Your task to perform on an android device: clear all cookies in the chrome app Image 0: 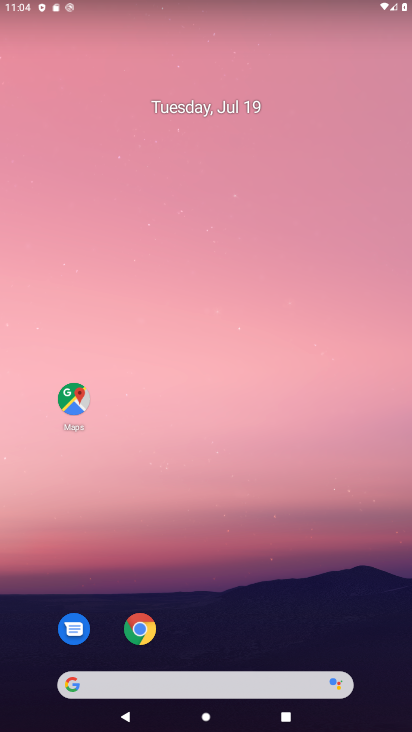
Step 0: drag from (260, 652) to (277, 44)
Your task to perform on an android device: clear all cookies in the chrome app Image 1: 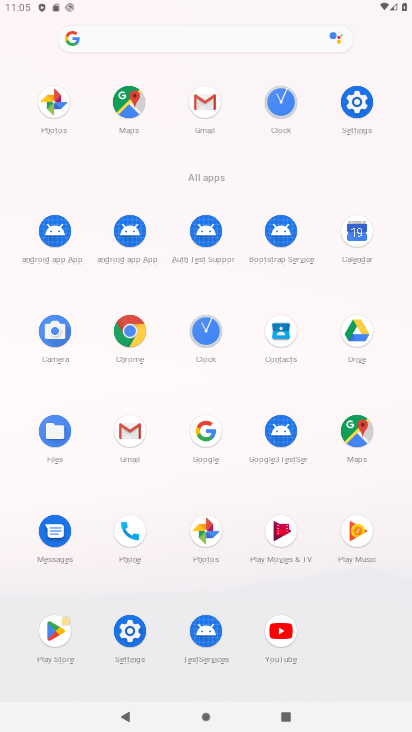
Step 1: click (135, 325)
Your task to perform on an android device: clear all cookies in the chrome app Image 2: 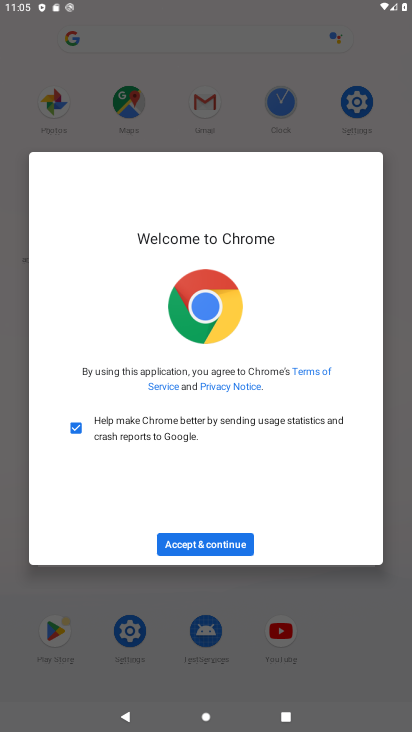
Step 2: click (235, 540)
Your task to perform on an android device: clear all cookies in the chrome app Image 3: 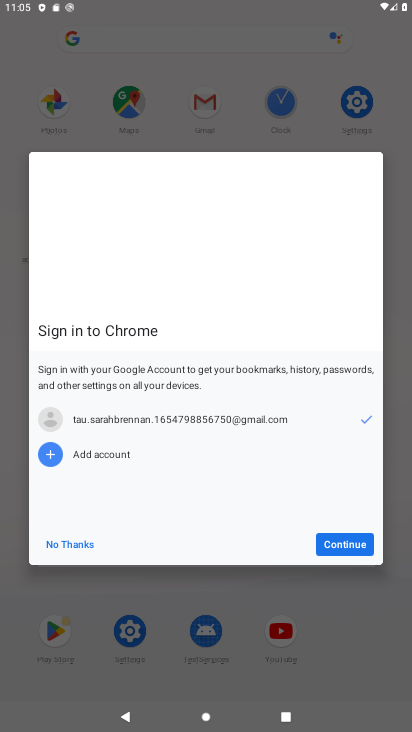
Step 3: click (341, 537)
Your task to perform on an android device: clear all cookies in the chrome app Image 4: 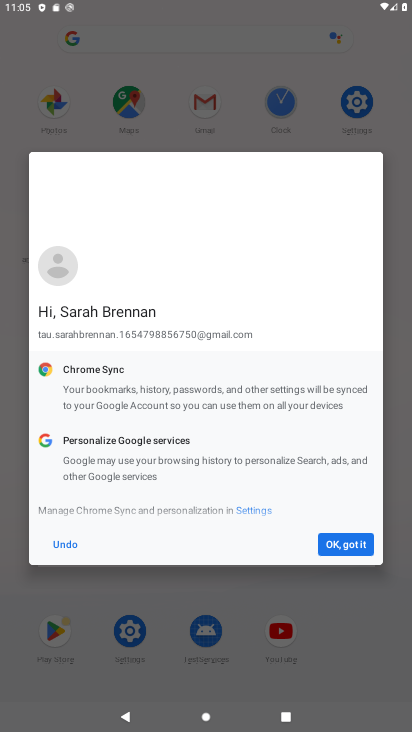
Step 4: click (341, 537)
Your task to perform on an android device: clear all cookies in the chrome app Image 5: 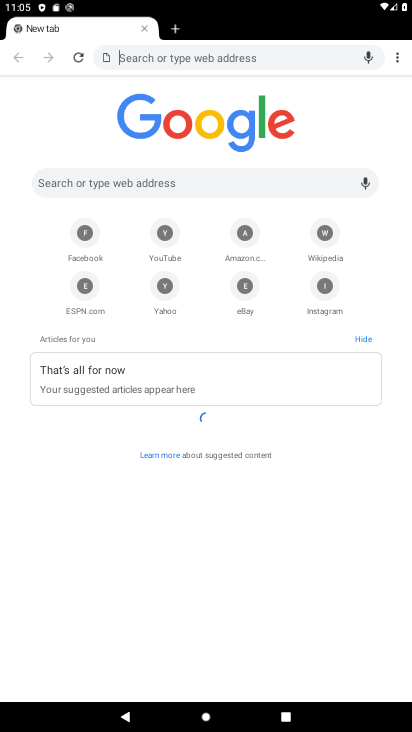
Step 5: drag from (392, 54) to (308, 264)
Your task to perform on an android device: clear all cookies in the chrome app Image 6: 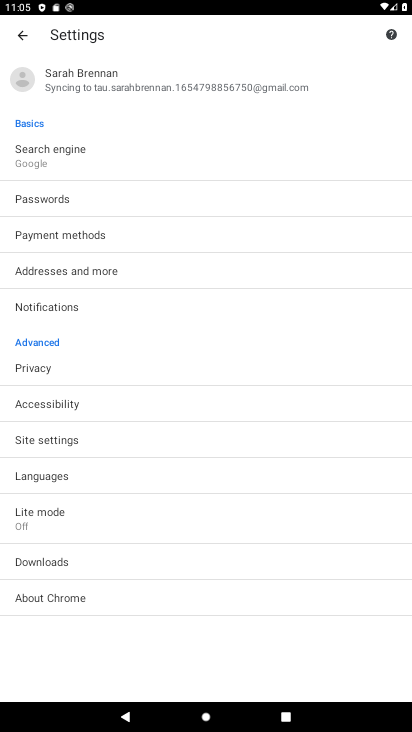
Step 6: click (18, 32)
Your task to perform on an android device: clear all cookies in the chrome app Image 7: 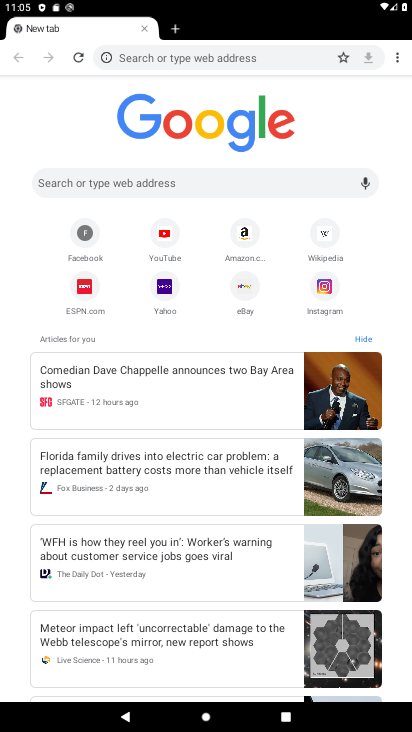
Step 7: drag from (404, 60) to (303, 170)
Your task to perform on an android device: clear all cookies in the chrome app Image 8: 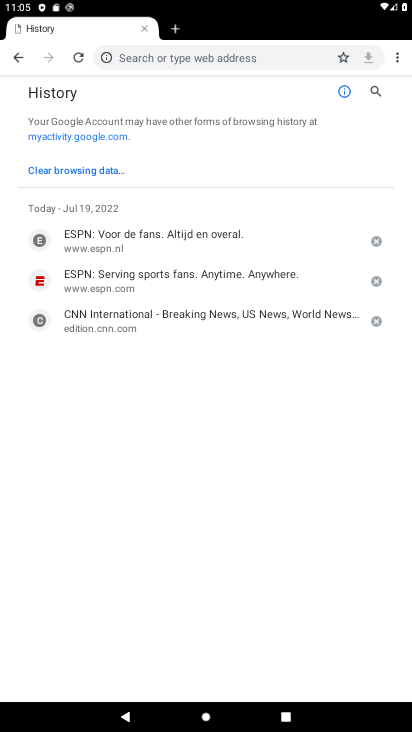
Step 8: click (95, 170)
Your task to perform on an android device: clear all cookies in the chrome app Image 9: 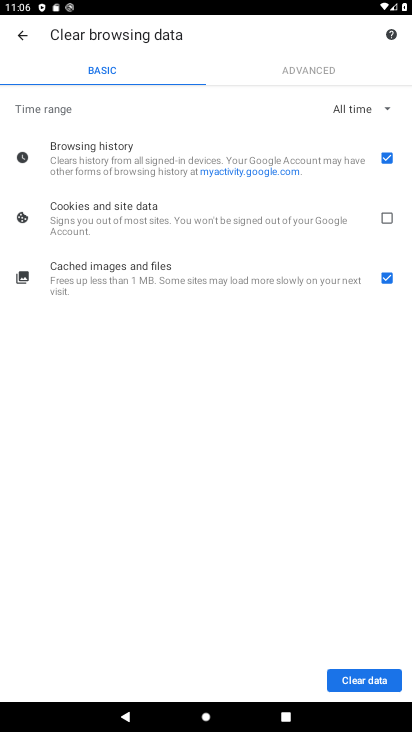
Step 9: click (386, 218)
Your task to perform on an android device: clear all cookies in the chrome app Image 10: 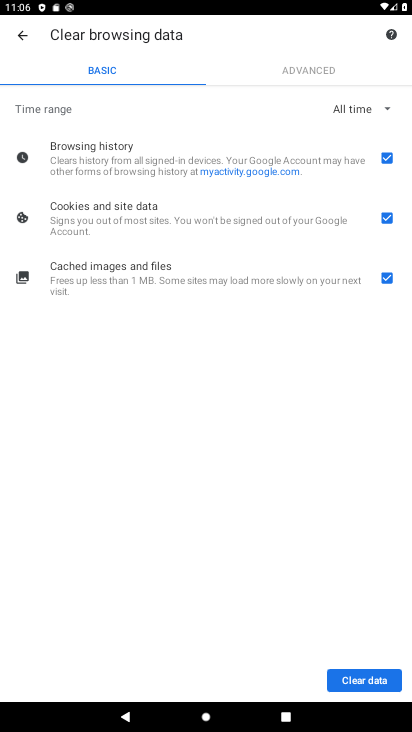
Step 10: click (365, 680)
Your task to perform on an android device: clear all cookies in the chrome app Image 11: 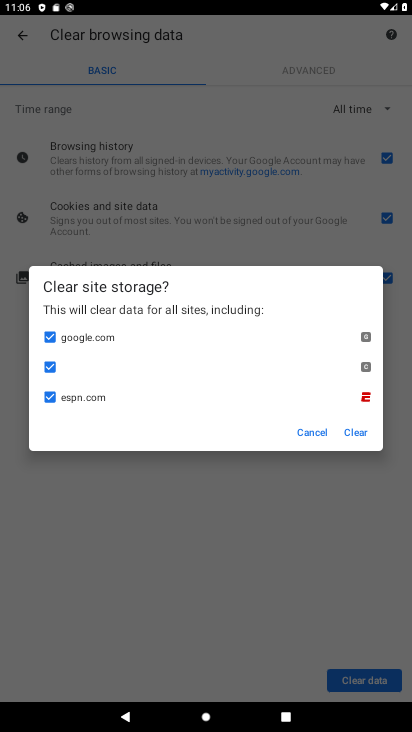
Step 11: click (366, 429)
Your task to perform on an android device: clear all cookies in the chrome app Image 12: 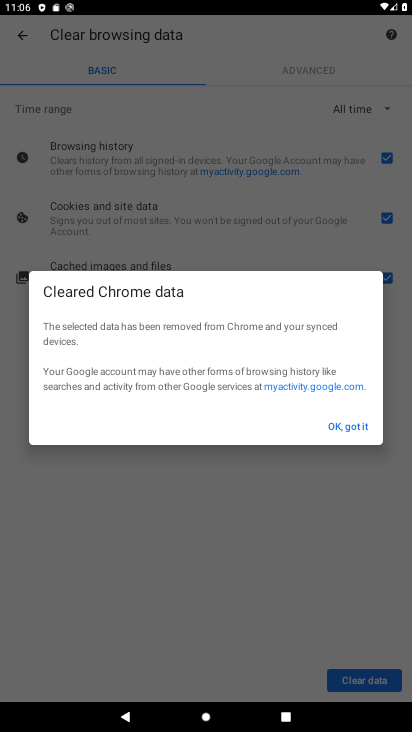
Step 12: task complete